Your task to perform on an android device: Show me productivity apps on the Play Store Image 0: 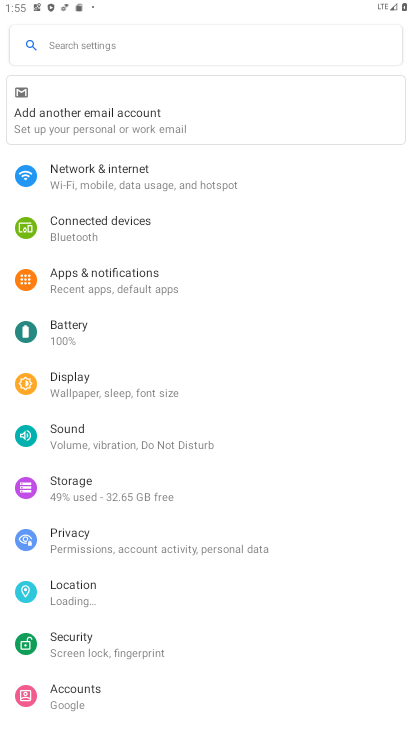
Step 0: press home button
Your task to perform on an android device: Show me productivity apps on the Play Store Image 1: 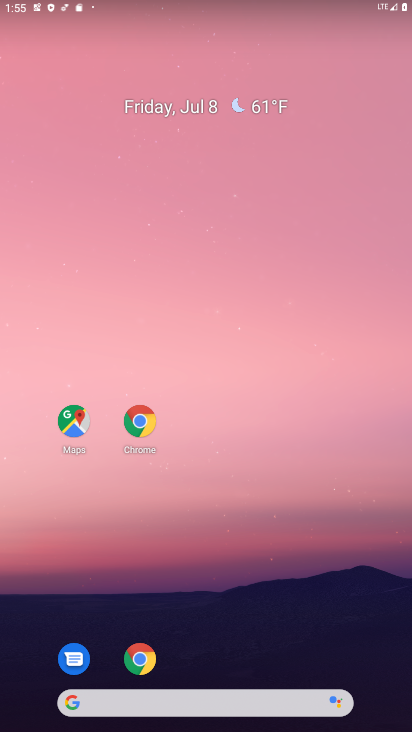
Step 1: drag from (223, 684) to (195, 148)
Your task to perform on an android device: Show me productivity apps on the Play Store Image 2: 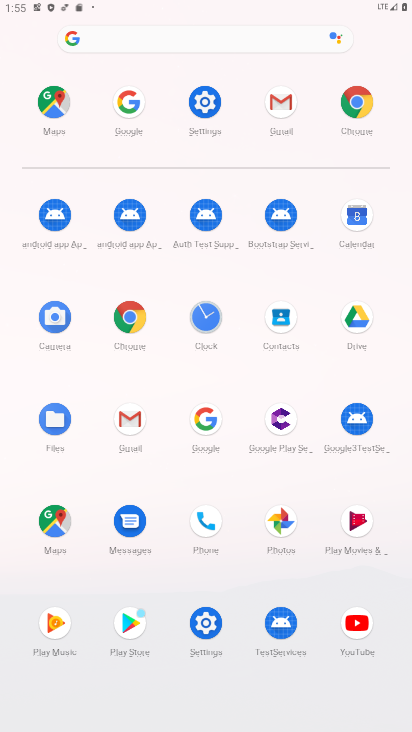
Step 2: click (130, 630)
Your task to perform on an android device: Show me productivity apps on the Play Store Image 3: 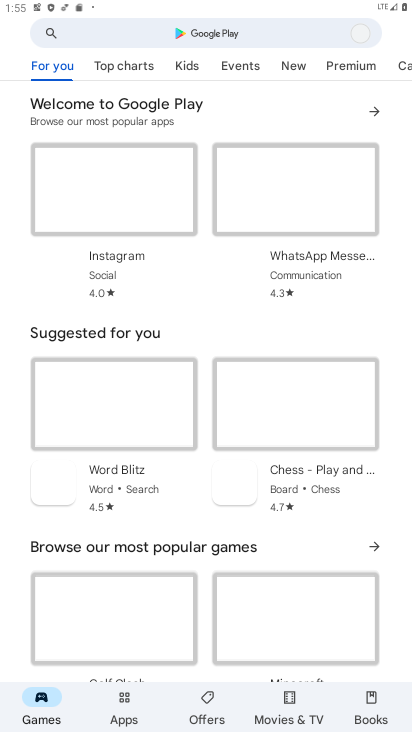
Step 3: click (129, 708)
Your task to perform on an android device: Show me productivity apps on the Play Store Image 4: 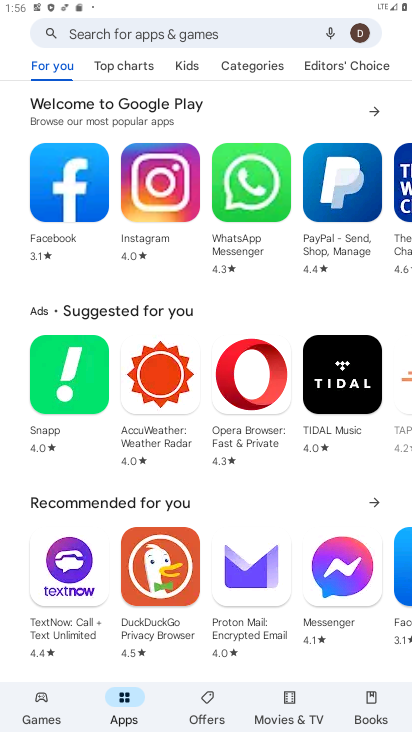
Step 4: click (248, 65)
Your task to perform on an android device: Show me productivity apps on the Play Store Image 5: 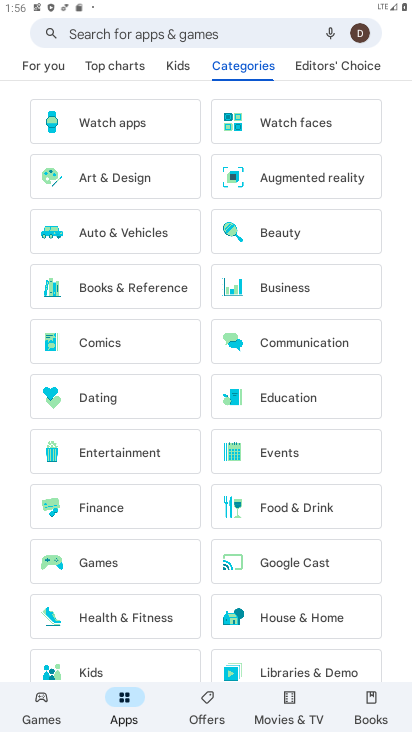
Step 5: drag from (207, 640) to (218, 258)
Your task to perform on an android device: Show me productivity apps on the Play Store Image 6: 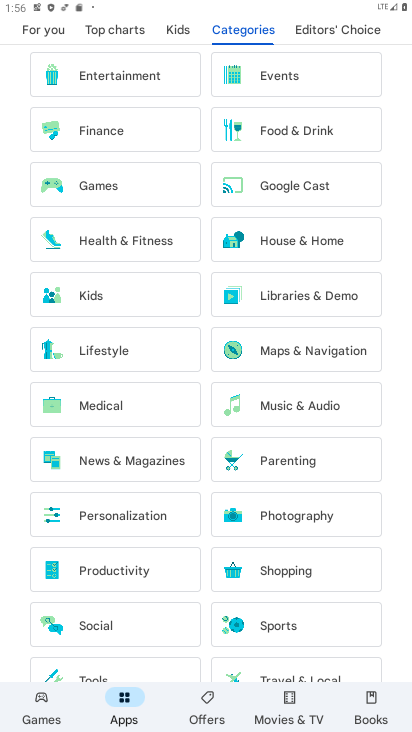
Step 6: click (143, 573)
Your task to perform on an android device: Show me productivity apps on the Play Store Image 7: 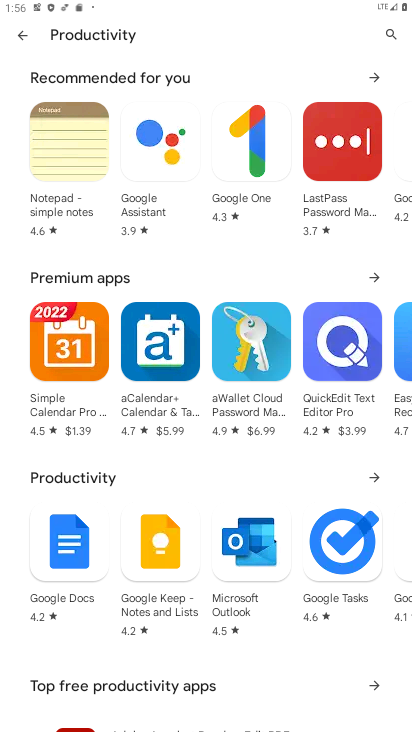
Step 7: task complete